Your task to perform on an android device: What's the weather today? Image 0: 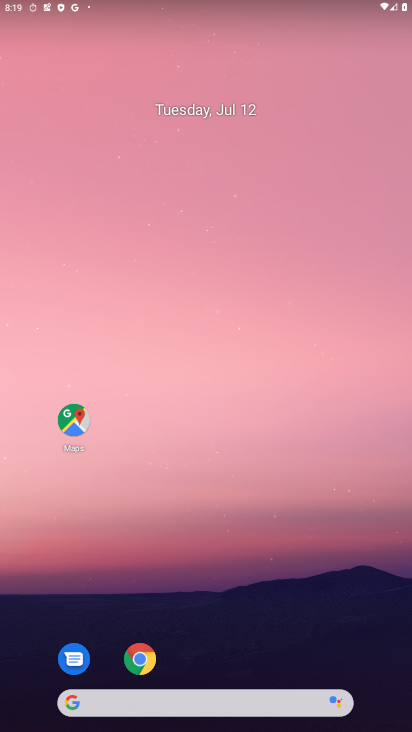
Step 0: drag from (329, 684) to (226, 432)
Your task to perform on an android device: What's the weather today? Image 1: 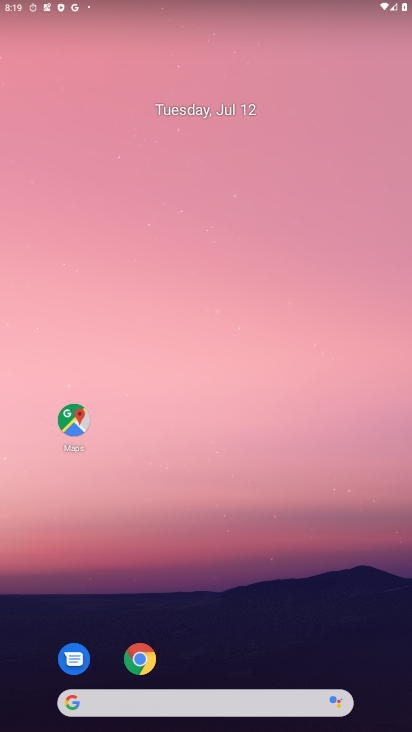
Step 1: drag from (277, 677) to (163, 95)
Your task to perform on an android device: What's the weather today? Image 2: 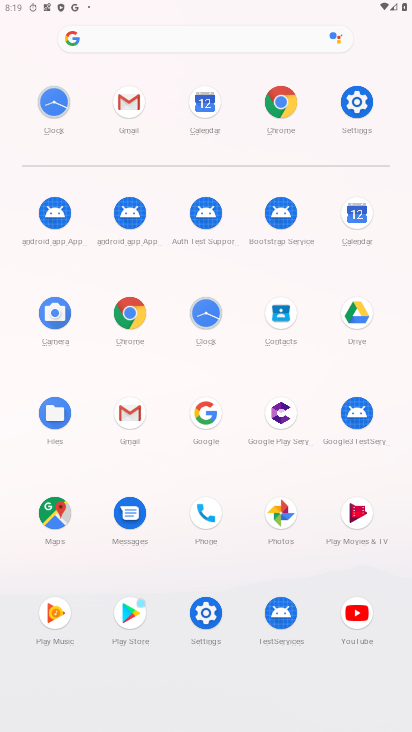
Step 2: click (288, 107)
Your task to perform on an android device: What's the weather today? Image 3: 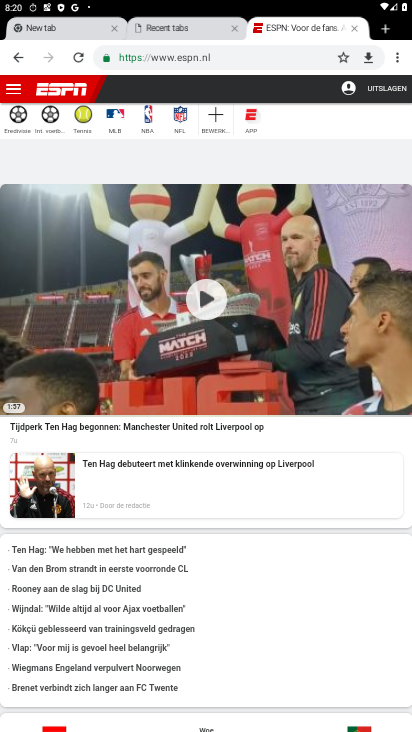
Step 3: click (134, 59)
Your task to perform on an android device: What's the weather today? Image 4: 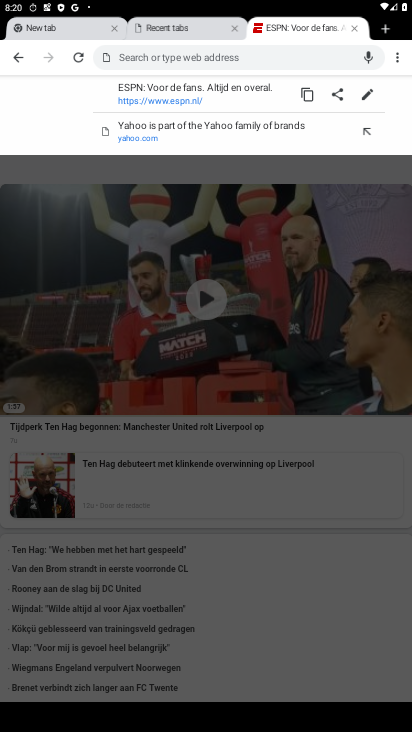
Step 4: type "weather"
Your task to perform on an android device: What's the weather today? Image 5: 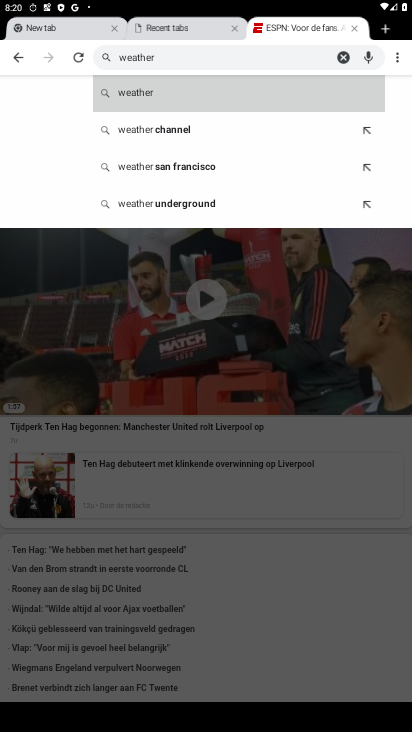
Step 5: click (157, 91)
Your task to perform on an android device: What's the weather today? Image 6: 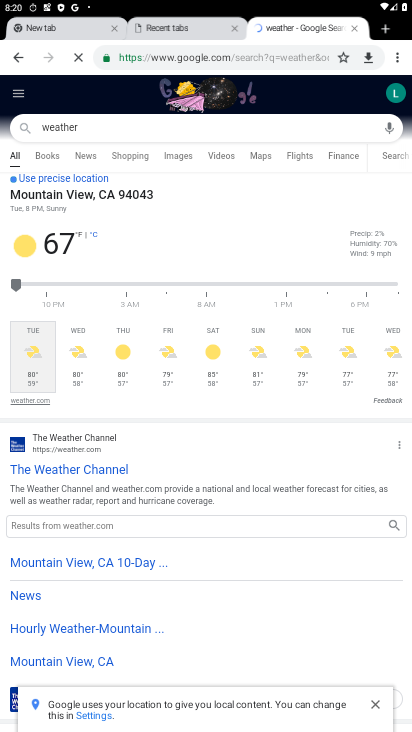
Step 6: task complete